Your task to perform on an android device: Turn off the flashlight Image 0: 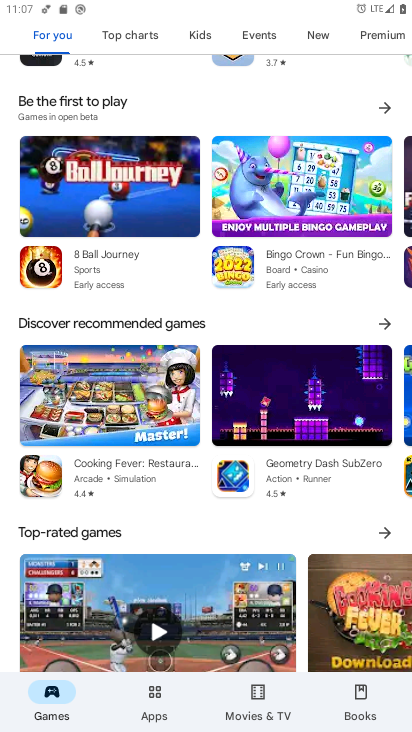
Step 0: press home button
Your task to perform on an android device: Turn off the flashlight Image 1: 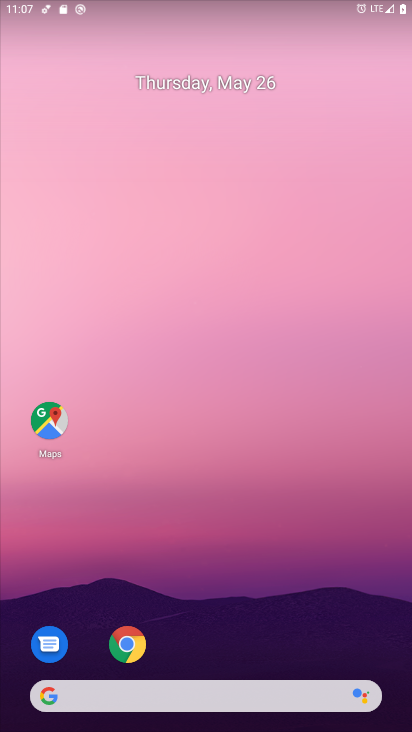
Step 1: drag from (252, 0) to (244, 374)
Your task to perform on an android device: Turn off the flashlight Image 2: 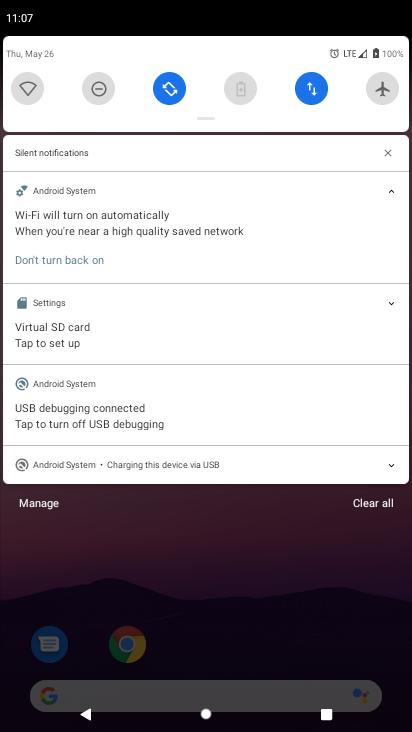
Step 2: drag from (203, 54) to (225, 335)
Your task to perform on an android device: Turn off the flashlight Image 3: 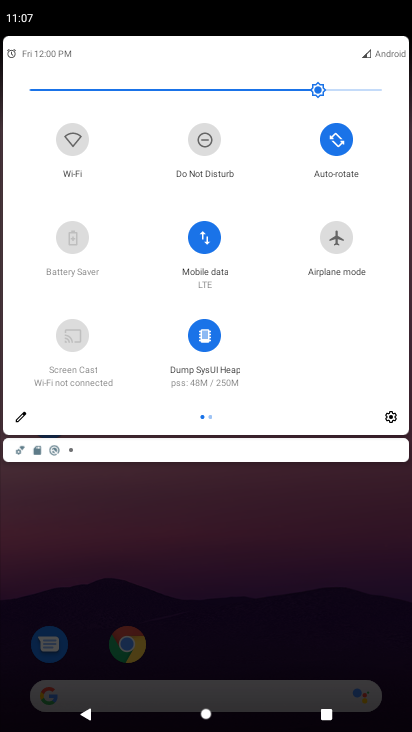
Step 3: click (24, 426)
Your task to perform on an android device: Turn off the flashlight Image 4: 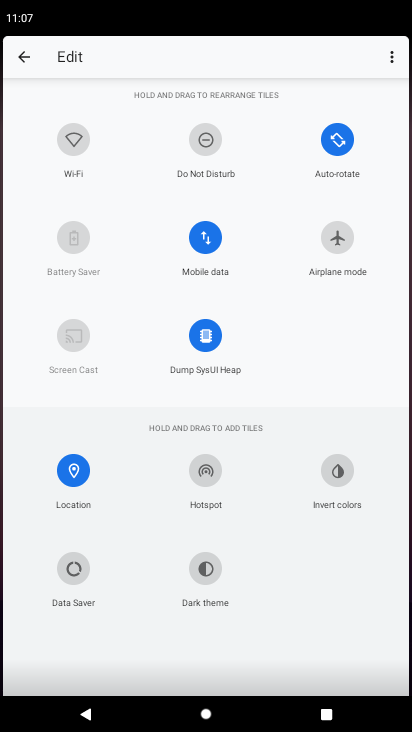
Step 4: task complete